Your task to perform on an android device: Search for seafood restaurants on Google Maps Image 0: 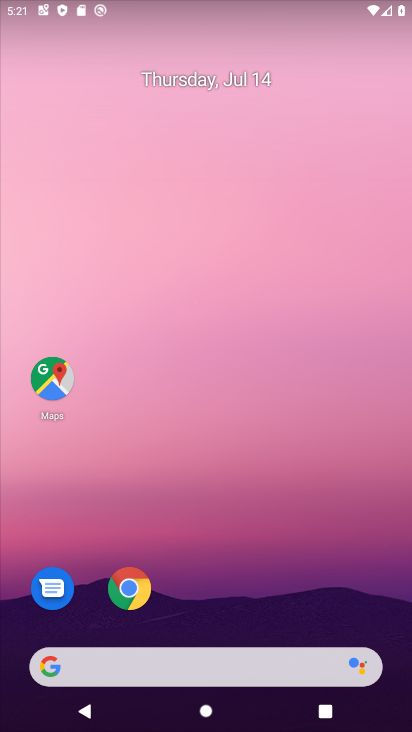
Step 0: drag from (204, 634) to (236, 243)
Your task to perform on an android device: Search for seafood restaurants on Google Maps Image 1: 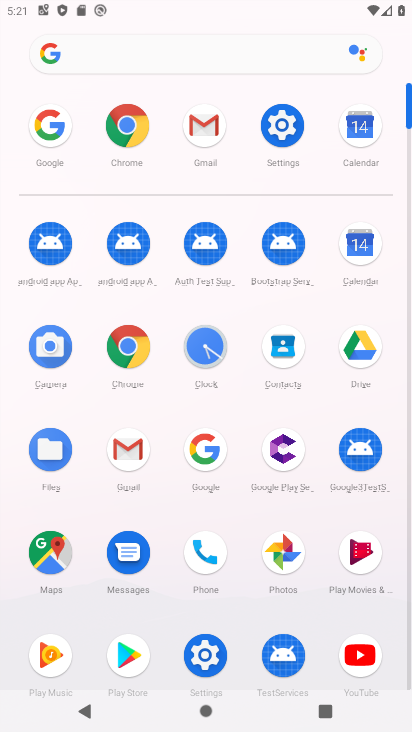
Step 1: click (37, 552)
Your task to perform on an android device: Search for seafood restaurants on Google Maps Image 2: 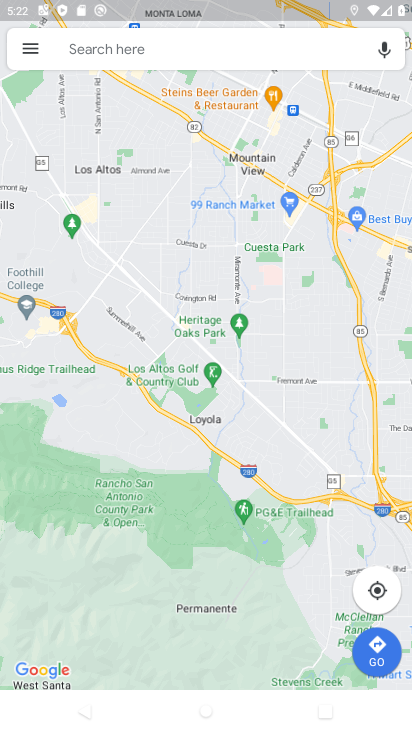
Step 2: click (106, 53)
Your task to perform on an android device: Search for seafood restaurants on Google Maps Image 3: 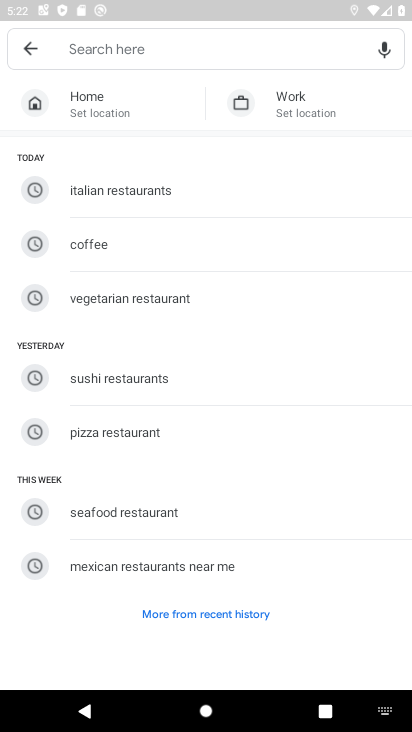
Step 3: click (84, 517)
Your task to perform on an android device: Search for seafood restaurants on Google Maps Image 4: 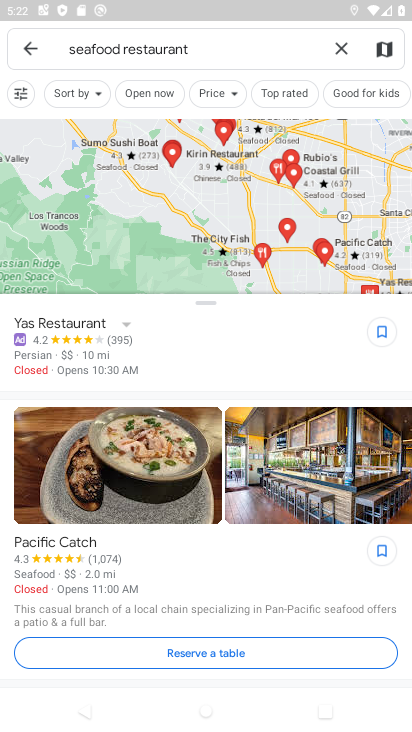
Step 4: task complete